Your task to perform on an android device: open device folders in google photos Image 0: 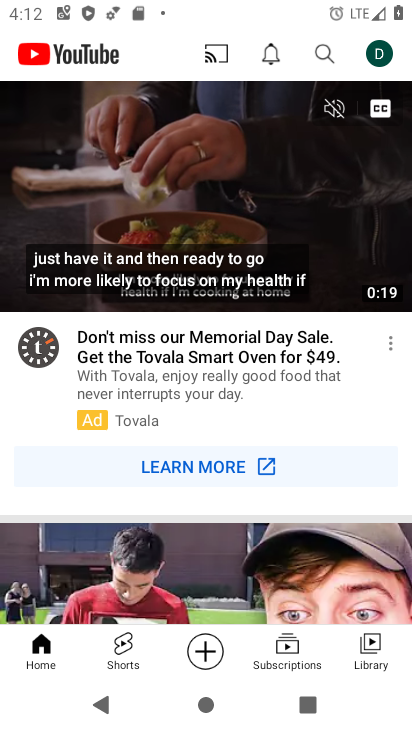
Step 0: press home button
Your task to perform on an android device: open device folders in google photos Image 1: 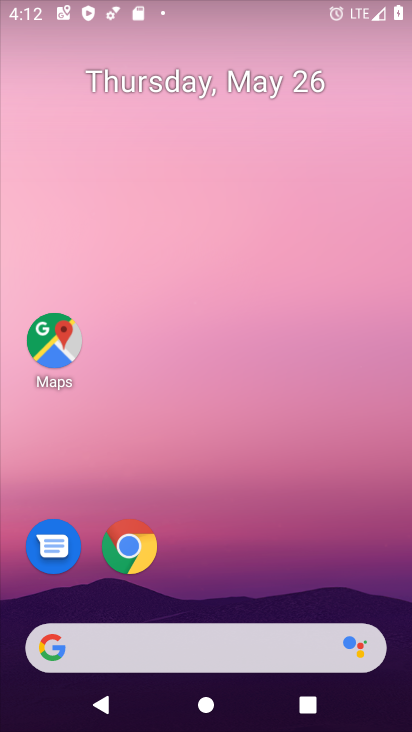
Step 1: drag from (289, 541) to (318, 42)
Your task to perform on an android device: open device folders in google photos Image 2: 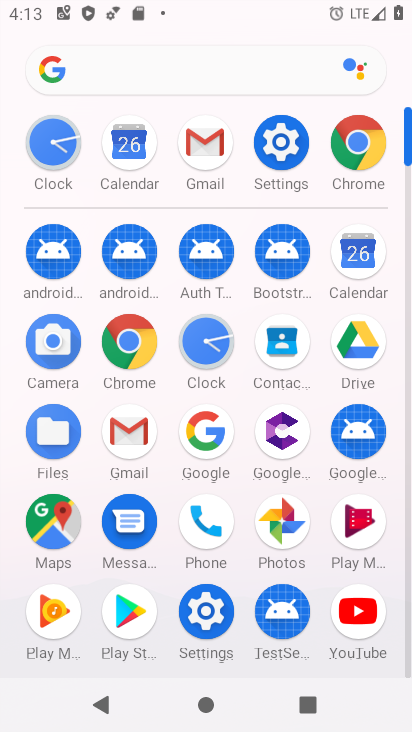
Step 2: click (273, 534)
Your task to perform on an android device: open device folders in google photos Image 3: 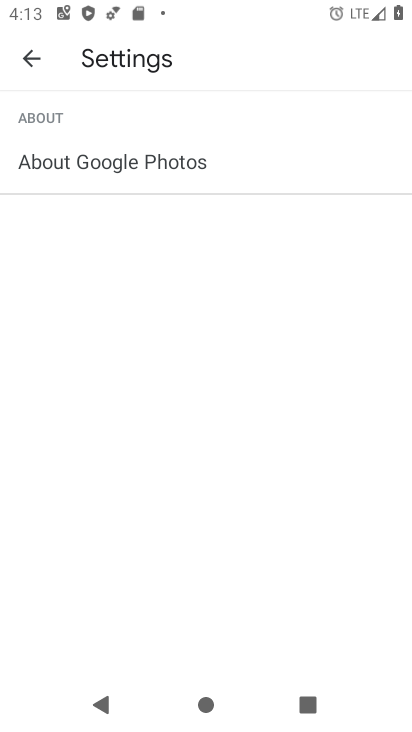
Step 3: click (29, 50)
Your task to perform on an android device: open device folders in google photos Image 4: 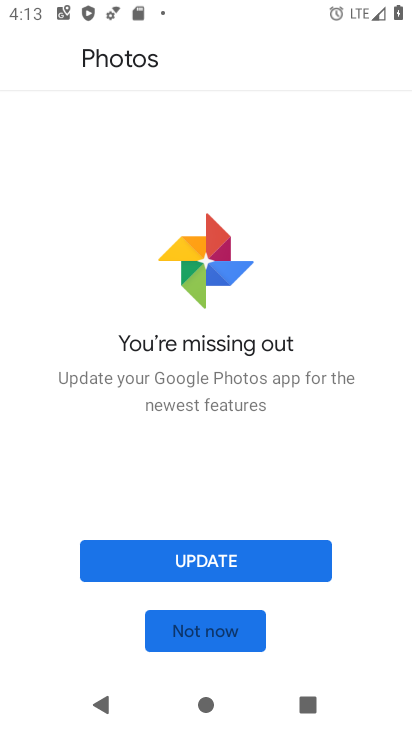
Step 4: click (204, 636)
Your task to perform on an android device: open device folders in google photos Image 5: 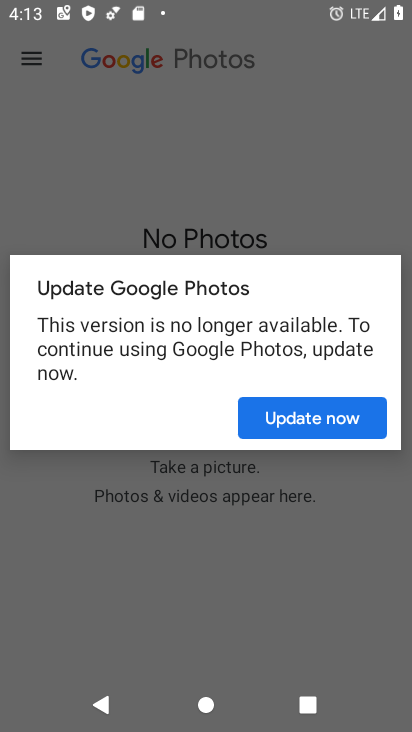
Step 5: click (304, 417)
Your task to perform on an android device: open device folders in google photos Image 6: 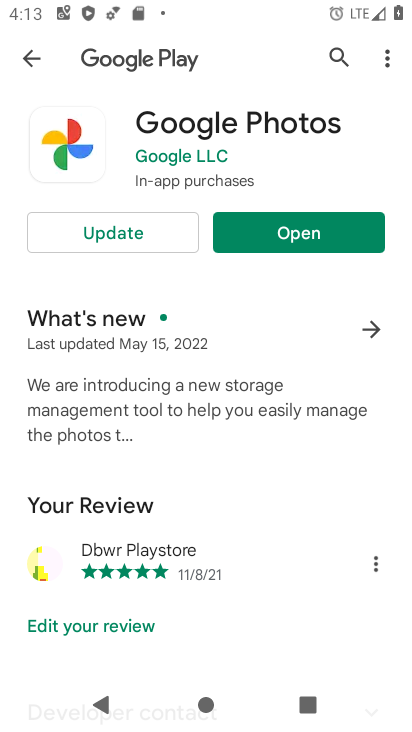
Step 6: click (302, 266)
Your task to perform on an android device: open device folders in google photos Image 7: 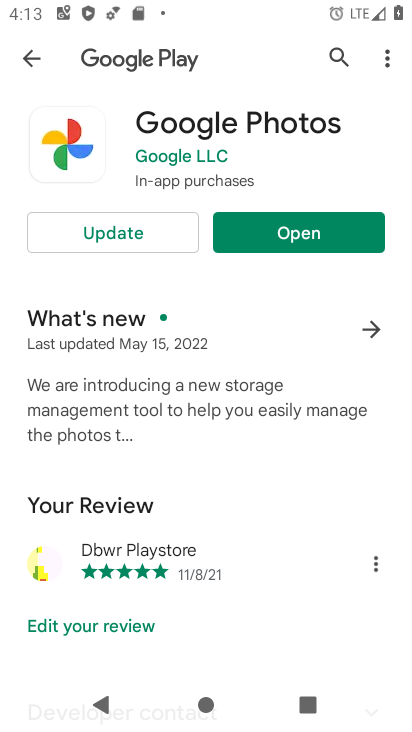
Step 7: click (297, 232)
Your task to perform on an android device: open device folders in google photos Image 8: 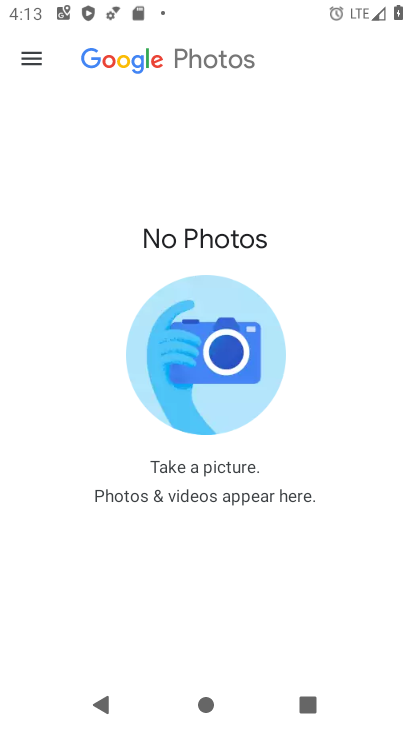
Step 8: click (39, 58)
Your task to perform on an android device: open device folders in google photos Image 9: 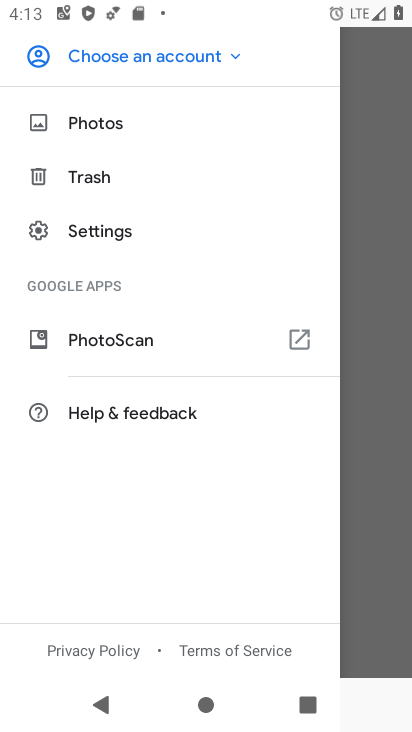
Step 9: task complete